Your task to perform on an android device: move an email to a new category in the gmail app Image 0: 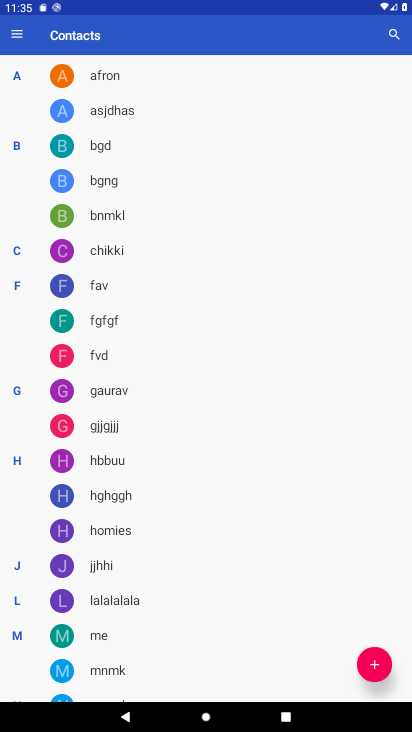
Step 0: press home button
Your task to perform on an android device: move an email to a new category in the gmail app Image 1: 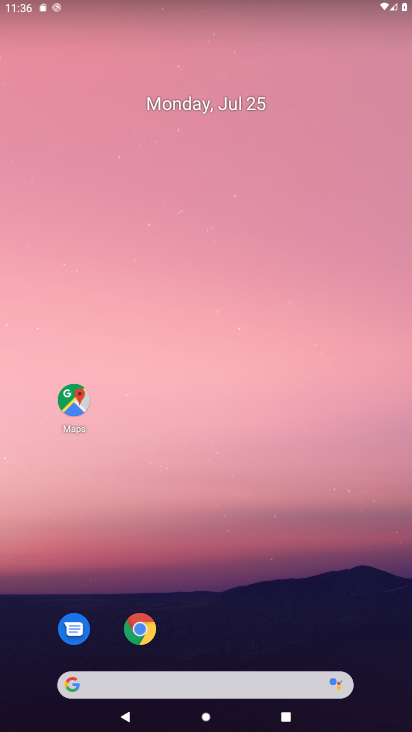
Step 1: drag from (191, 675) to (181, 81)
Your task to perform on an android device: move an email to a new category in the gmail app Image 2: 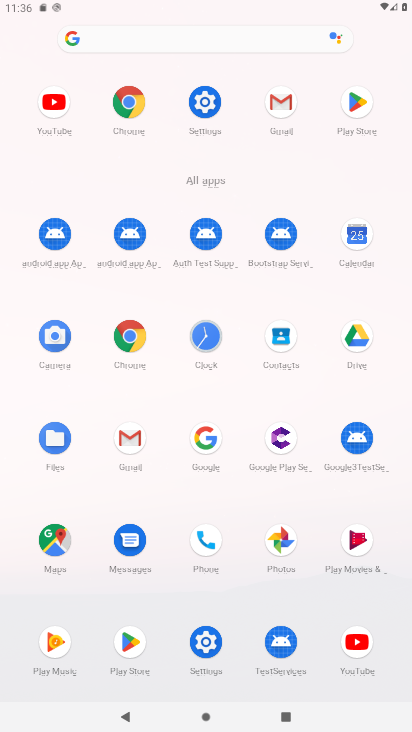
Step 2: click (135, 446)
Your task to perform on an android device: move an email to a new category in the gmail app Image 3: 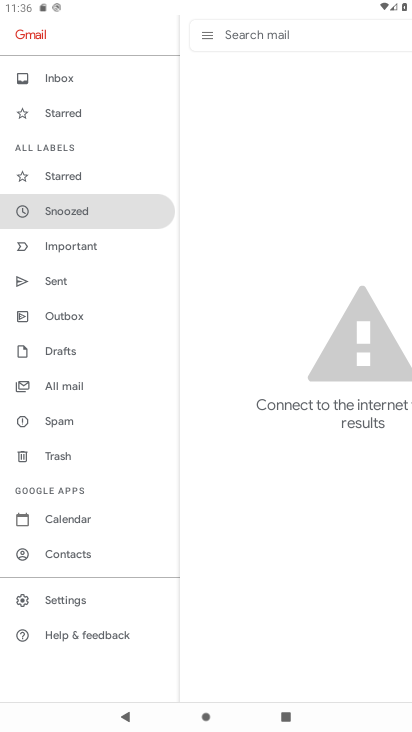
Step 3: click (87, 389)
Your task to perform on an android device: move an email to a new category in the gmail app Image 4: 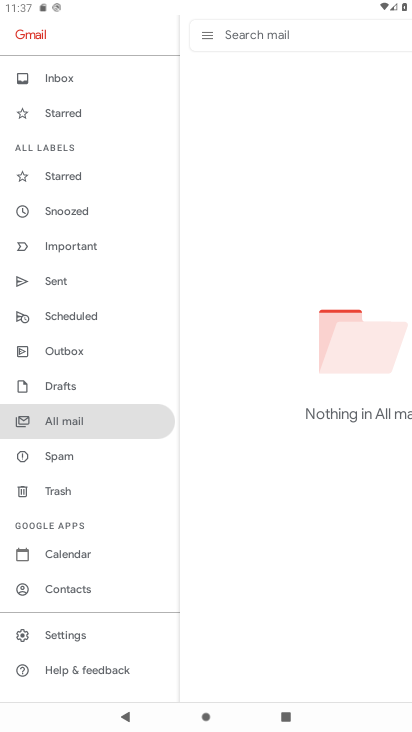
Step 4: task complete